Your task to perform on an android device: change your default location settings in chrome Image 0: 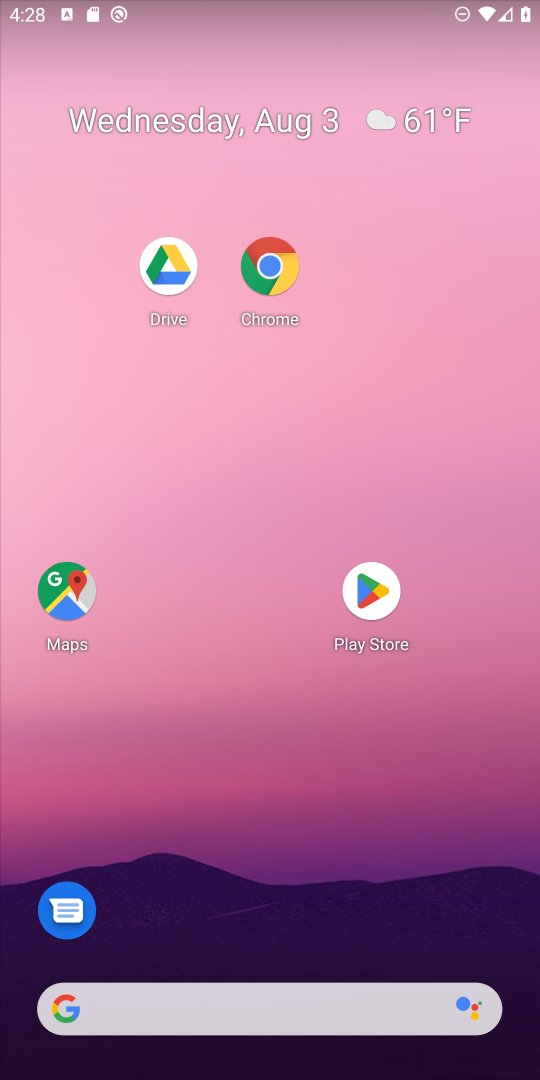
Step 0: drag from (373, 798) to (406, 2)
Your task to perform on an android device: change your default location settings in chrome Image 1: 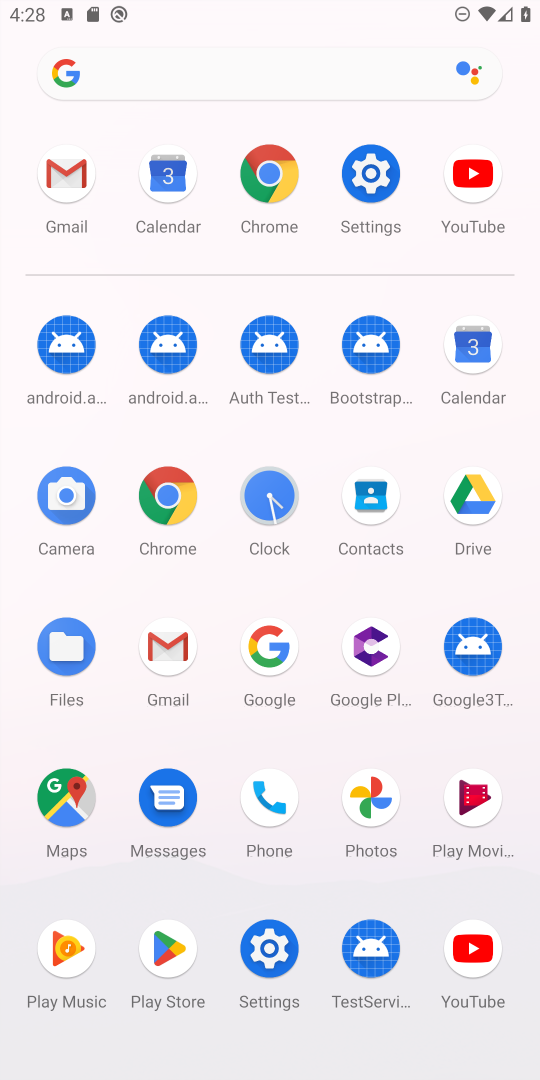
Step 1: click (171, 506)
Your task to perform on an android device: change your default location settings in chrome Image 2: 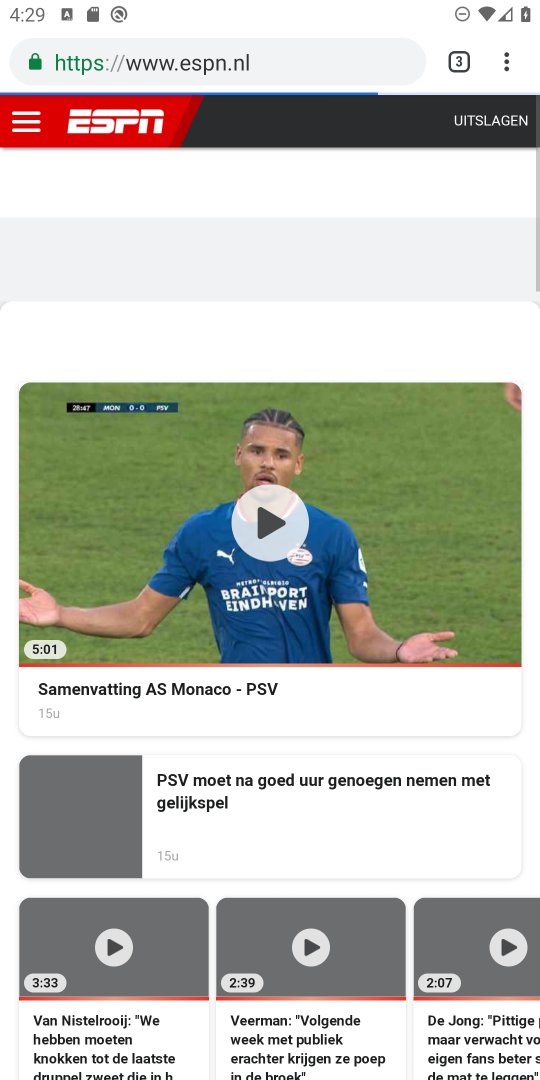
Step 2: drag from (508, 79) to (340, 685)
Your task to perform on an android device: change your default location settings in chrome Image 3: 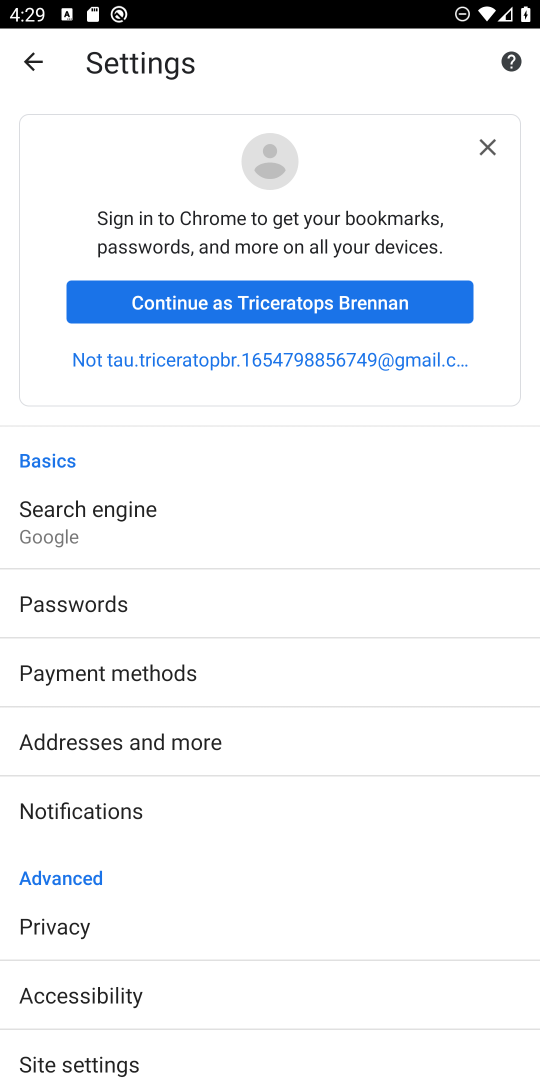
Step 3: drag from (207, 949) to (218, 310)
Your task to perform on an android device: change your default location settings in chrome Image 4: 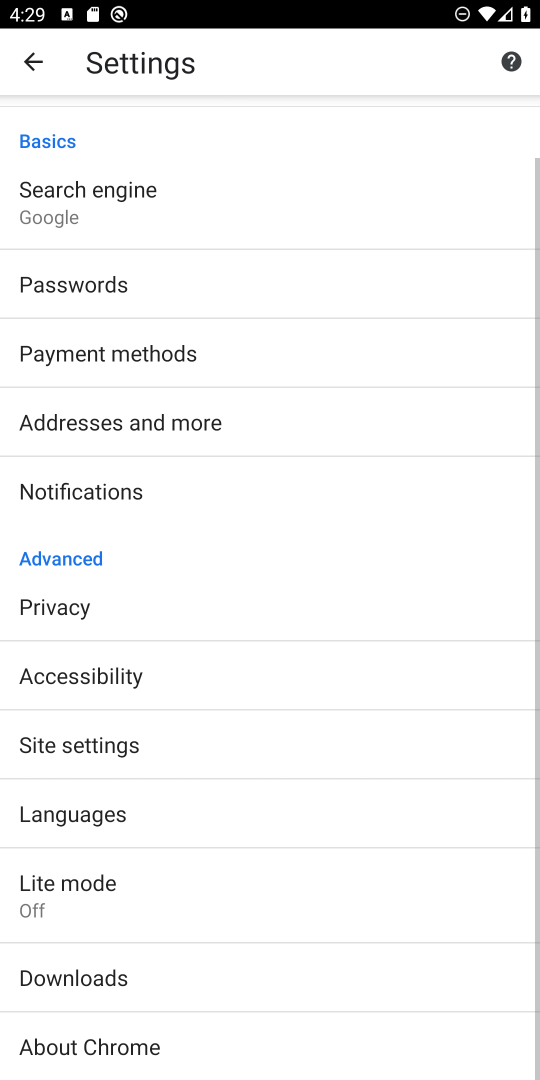
Step 4: click (117, 746)
Your task to perform on an android device: change your default location settings in chrome Image 5: 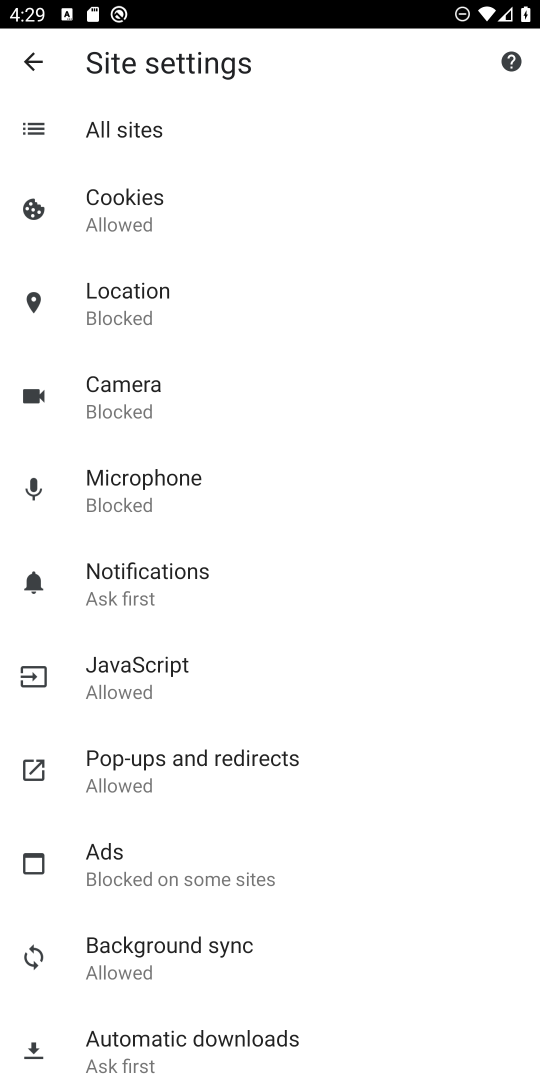
Step 5: click (121, 309)
Your task to perform on an android device: change your default location settings in chrome Image 6: 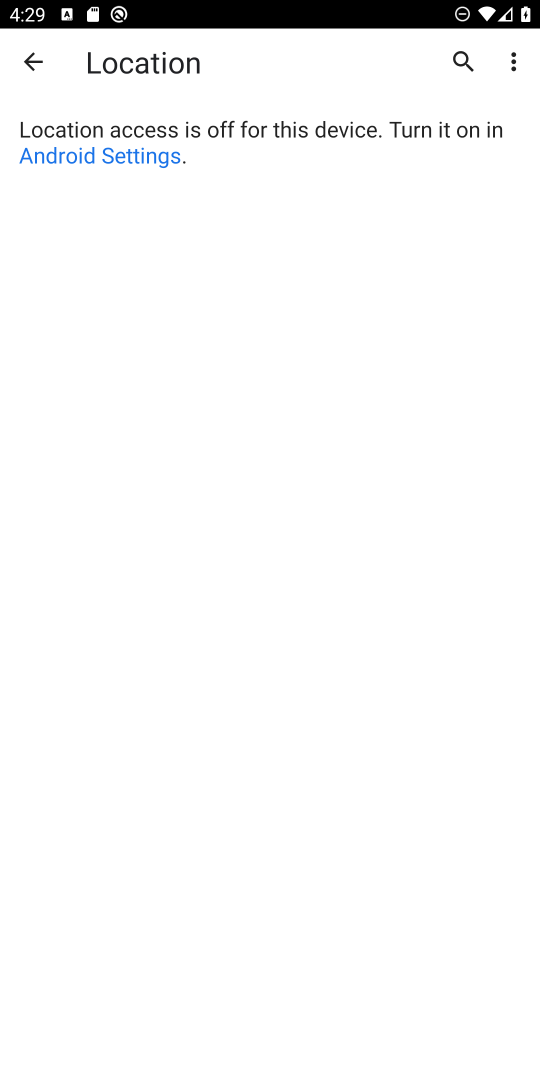
Step 6: task complete